Your task to perform on an android device: star an email in the gmail app Image 0: 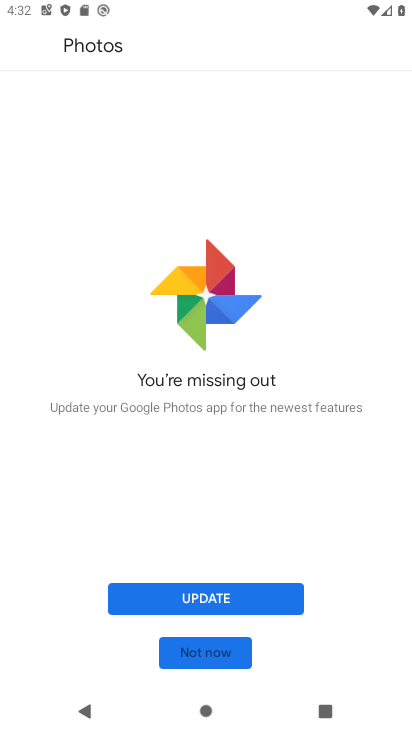
Step 0: press home button
Your task to perform on an android device: star an email in the gmail app Image 1: 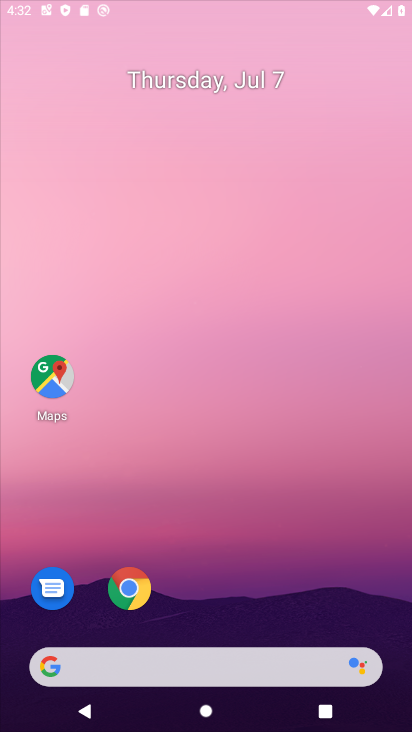
Step 1: drag from (210, 656) to (298, 3)
Your task to perform on an android device: star an email in the gmail app Image 2: 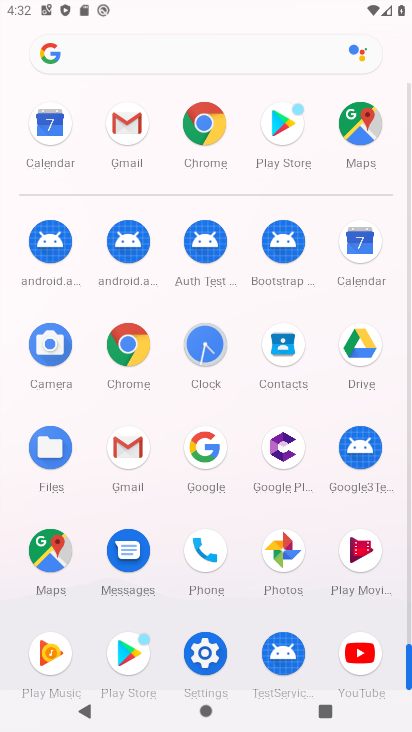
Step 2: click (110, 437)
Your task to perform on an android device: star an email in the gmail app Image 3: 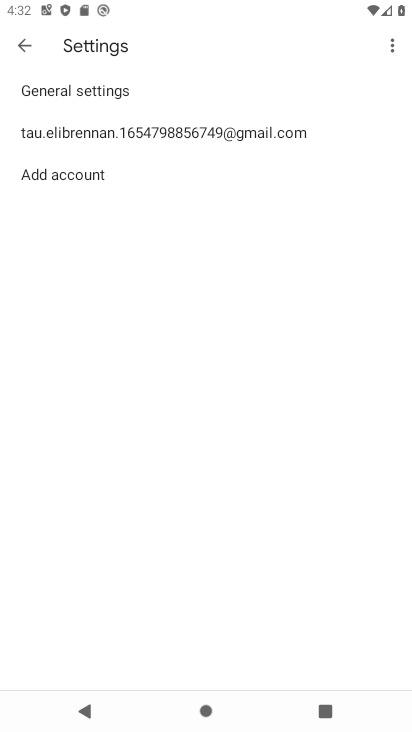
Step 3: press back button
Your task to perform on an android device: star an email in the gmail app Image 4: 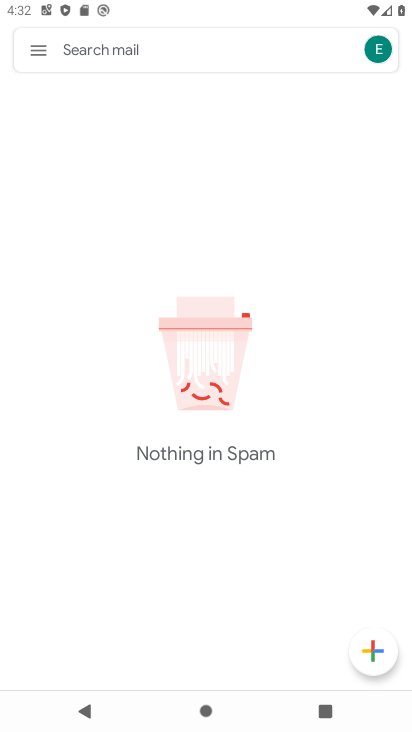
Step 4: click (33, 46)
Your task to perform on an android device: star an email in the gmail app Image 5: 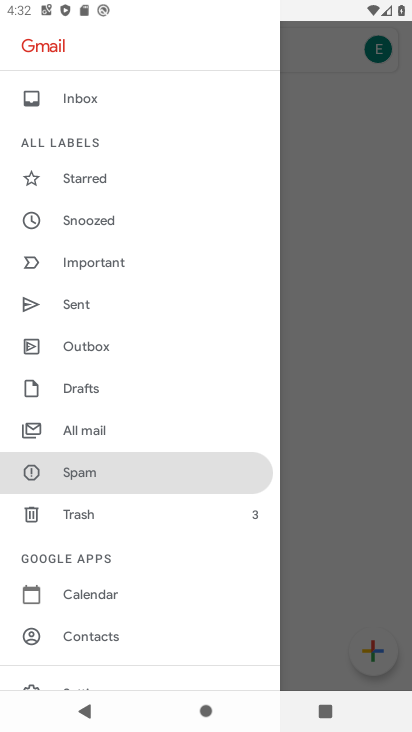
Step 5: click (94, 180)
Your task to perform on an android device: star an email in the gmail app Image 6: 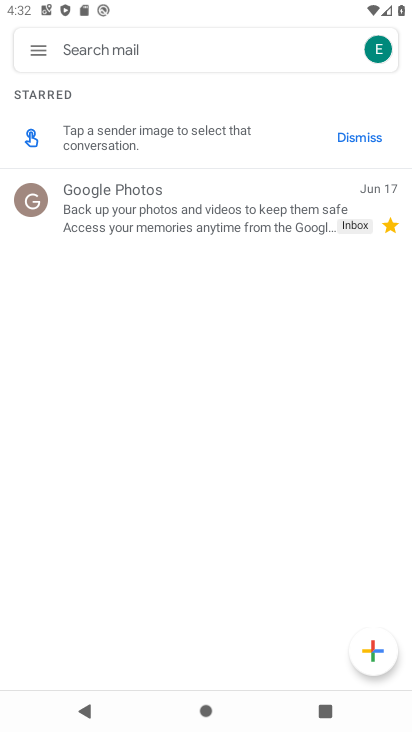
Step 6: task complete